Your task to perform on an android device: Add "lg ultragear" to the cart on bestbuy, then select checkout. Image 0: 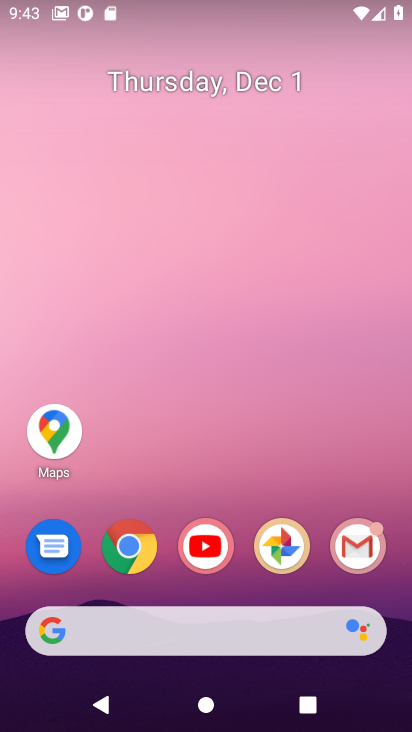
Step 0: click (139, 541)
Your task to perform on an android device: Add "lg ultragear" to the cart on bestbuy, then select checkout. Image 1: 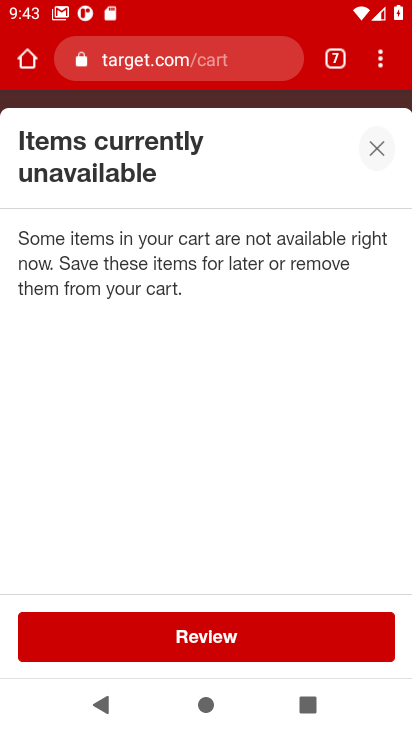
Step 1: click (171, 59)
Your task to perform on an android device: Add "lg ultragear" to the cart on bestbuy, then select checkout. Image 2: 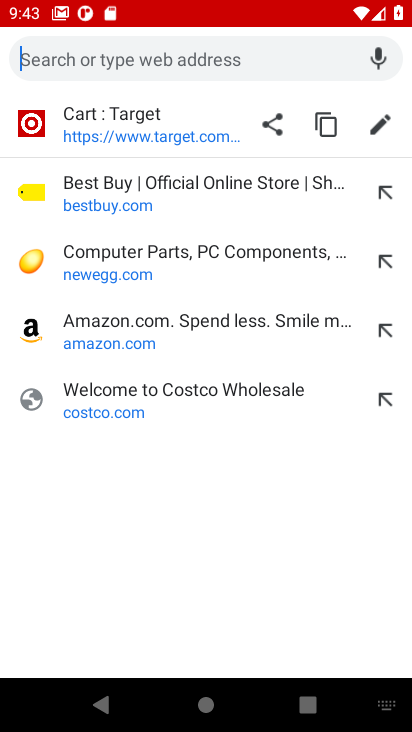
Step 2: click (97, 191)
Your task to perform on an android device: Add "lg ultragear" to the cart on bestbuy, then select checkout. Image 3: 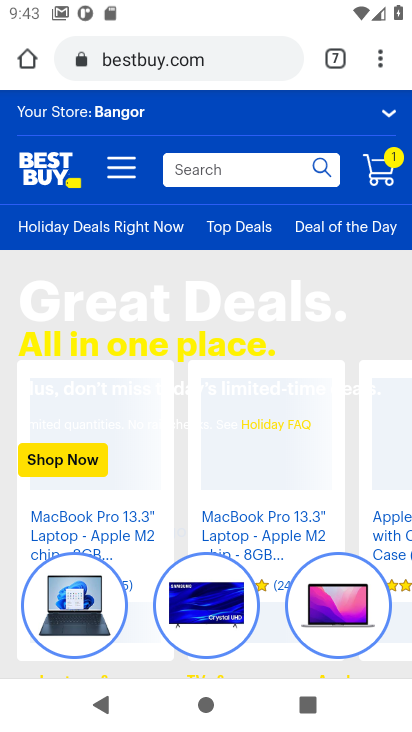
Step 3: click (193, 167)
Your task to perform on an android device: Add "lg ultragear" to the cart on bestbuy, then select checkout. Image 4: 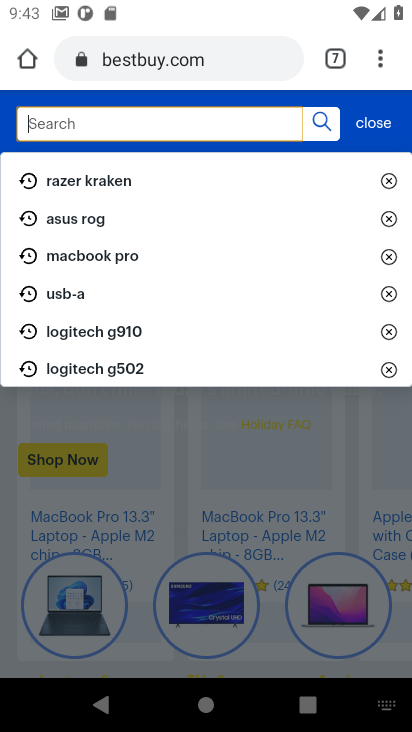
Step 4: type "lg ultragear"
Your task to perform on an android device: Add "lg ultragear" to the cart on bestbuy, then select checkout. Image 5: 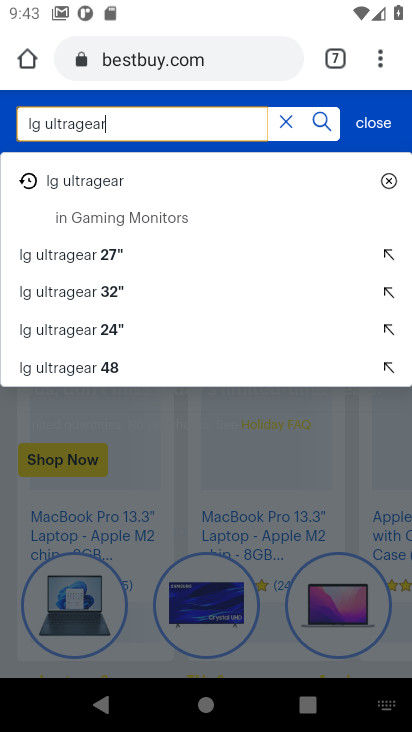
Step 5: click (72, 174)
Your task to perform on an android device: Add "lg ultragear" to the cart on bestbuy, then select checkout. Image 6: 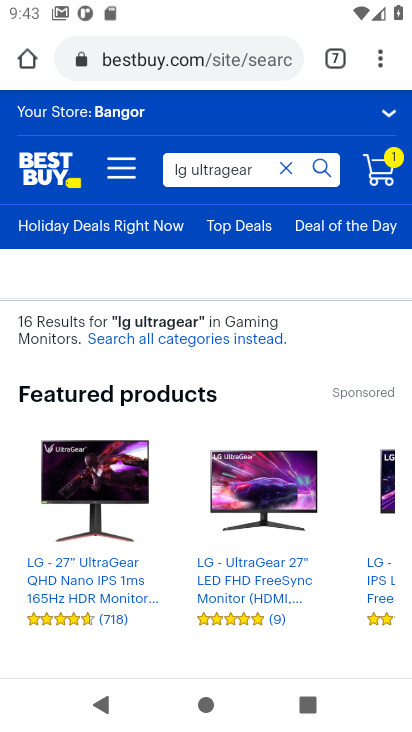
Step 6: drag from (183, 529) to (190, 151)
Your task to perform on an android device: Add "lg ultragear" to the cart on bestbuy, then select checkout. Image 7: 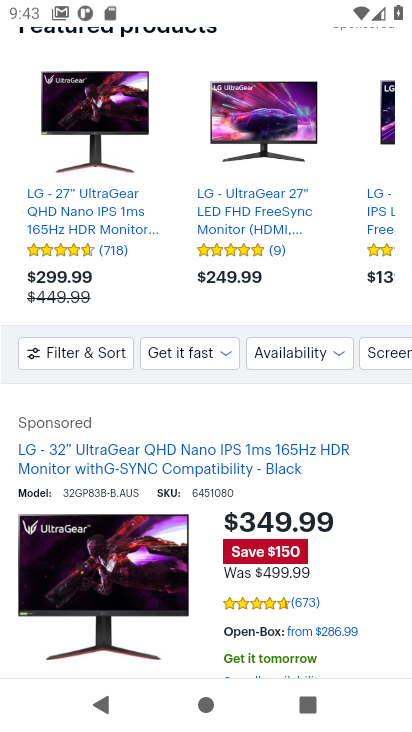
Step 7: drag from (166, 486) to (167, 229)
Your task to perform on an android device: Add "lg ultragear" to the cart on bestbuy, then select checkout. Image 8: 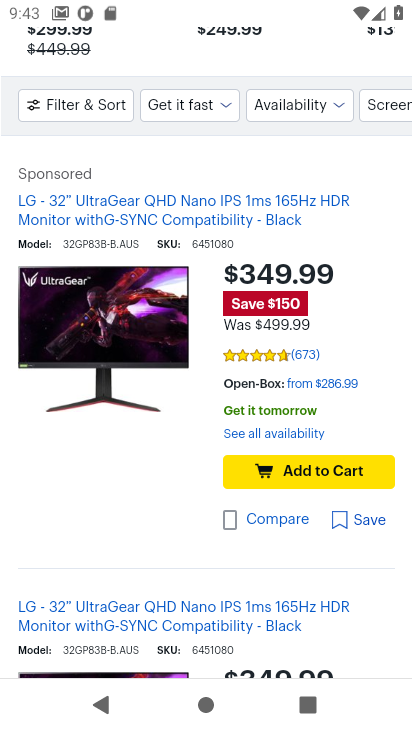
Step 8: click (302, 470)
Your task to perform on an android device: Add "lg ultragear" to the cart on bestbuy, then select checkout. Image 9: 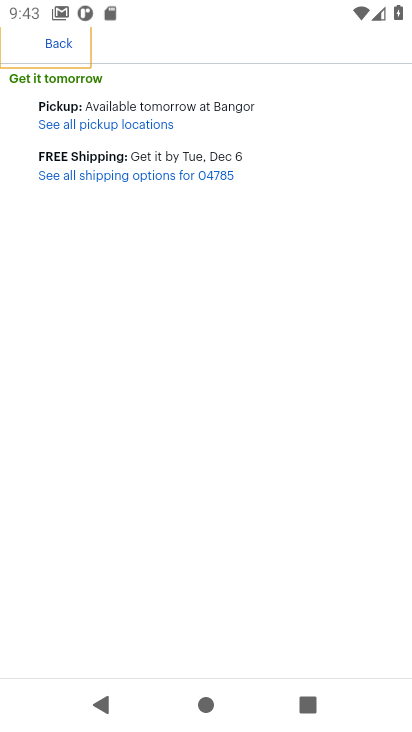
Step 9: click (299, 500)
Your task to perform on an android device: Add "lg ultragear" to the cart on bestbuy, then select checkout. Image 10: 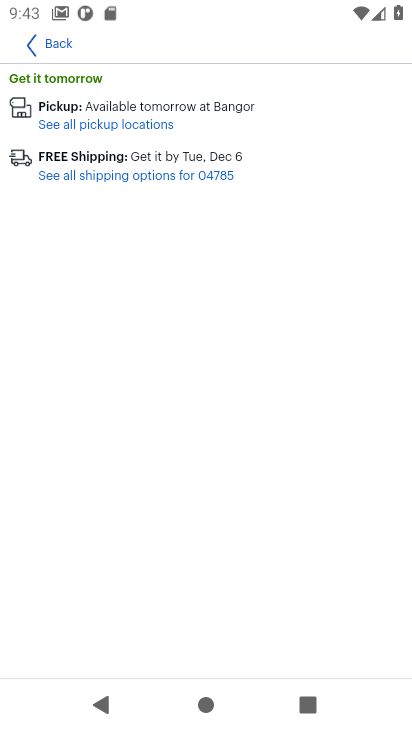
Step 10: click (42, 39)
Your task to perform on an android device: Add "lg ultragear" to the cart on bestbuy, then select checkout. Image 11: 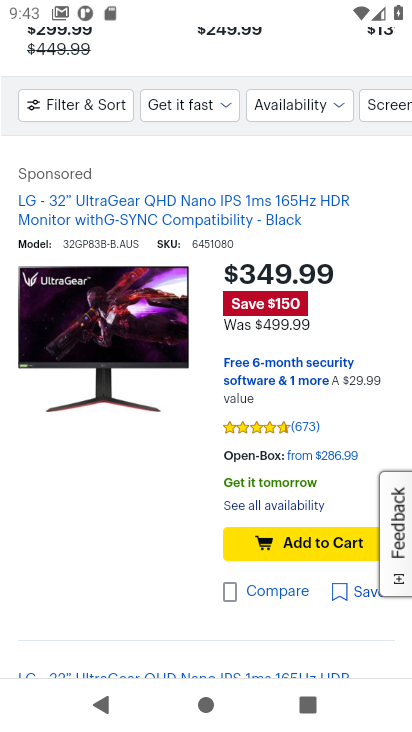
Step 11: click (268, 545)
Your task to perform on an android device: Add "lg ultragear" to the cart on bestbuy, then select checkout. Image 12: 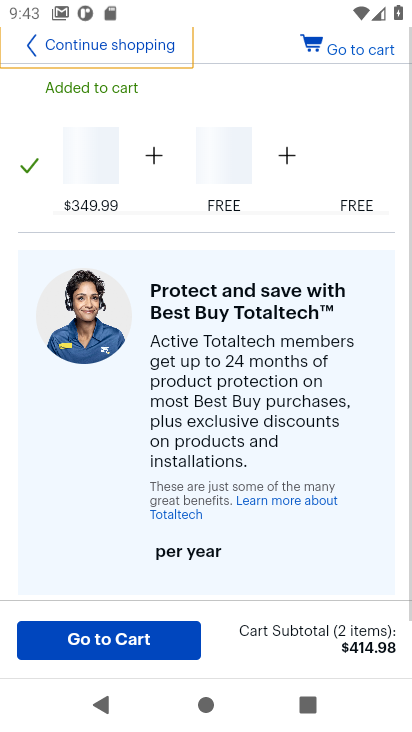
Step 12: click (365, 54)
Your task to perform on an android device: Add "lg ultragear" to the cart on bestbuy, then select checkout. Image 13: 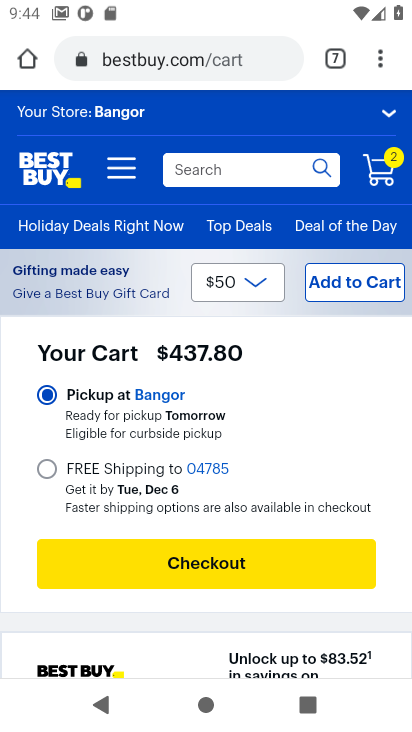
Step 13: click (190, 555)
Your task to perform on an android device: Add "lg ultragear" to the cart on bestbuy, then select checkout. Image 14: 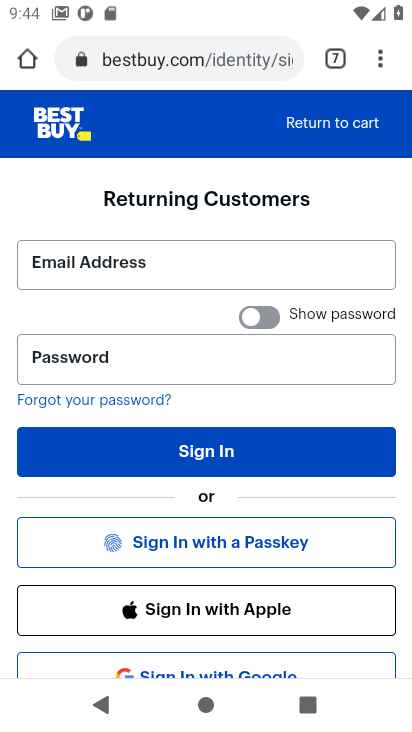
Step 14: task complete